Your task to perform on an android device: Open battery settings Image 0: 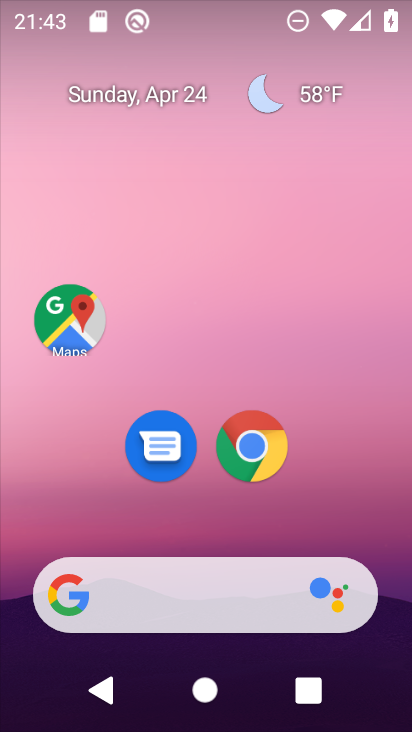
Step 0: press home button
Your task to perform on an android device: Open battery settings Image 1: 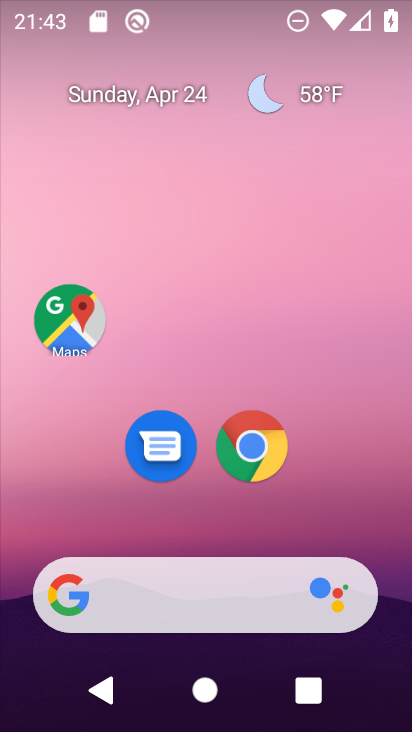
Step 1: drag from (173, 569) to (330, 49)
Your task to perform on an android device: Open battery settings Image 2: 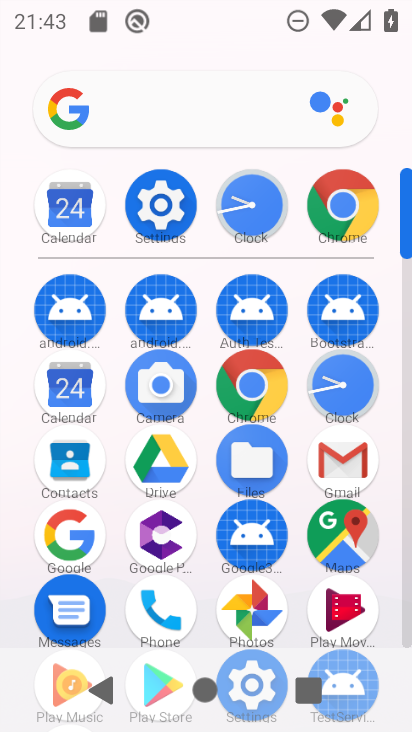
Step 2: click (164, 216)
Your task to perform on an android device: Open battery settings Image 3: 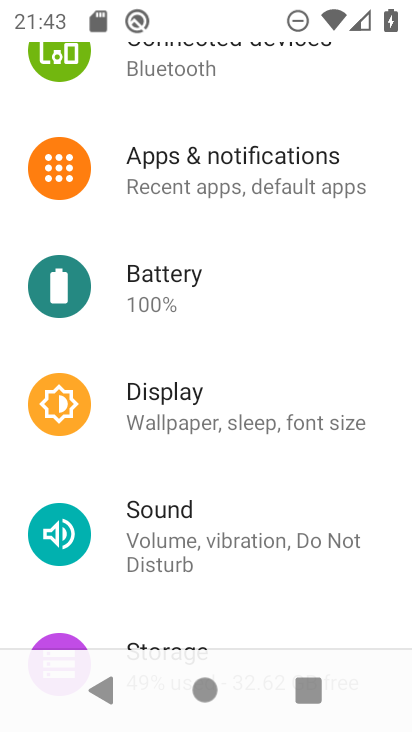
Step 3: click (191, 279)
Your task to perform on an android device: Open battery settings Image 4: 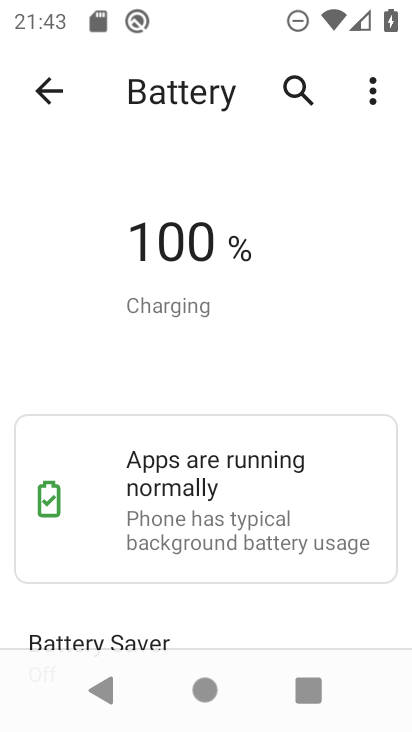
Step 4: task complete